Your task to perform on an android device: open app "PUBG MOBILE" Image 0: 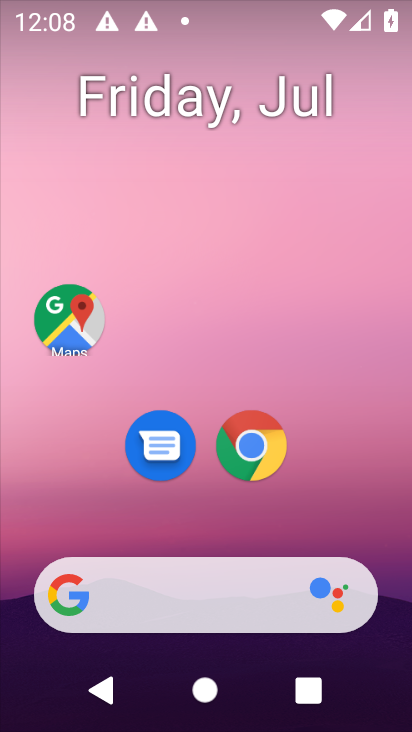
Step 0: drag from (204, 527) to (257, 20)
Your task to perform on an android device: open app "PUBG MOBILE" Image 1: 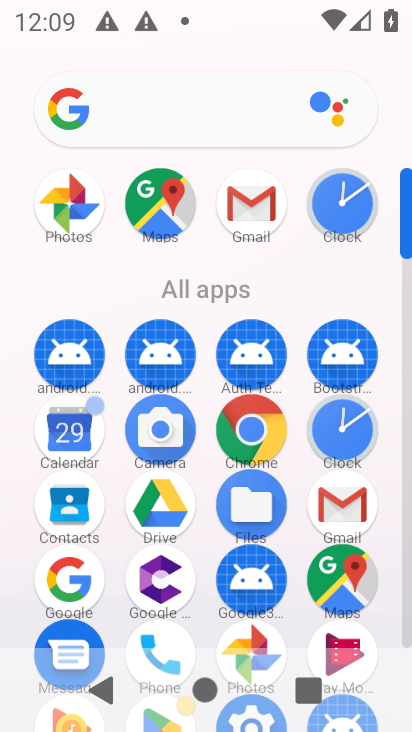
Step 1: drag from (204, 562) to (228, 259)
Your task to perform on an android device: open app "PUBG MOBILE" Image 2: 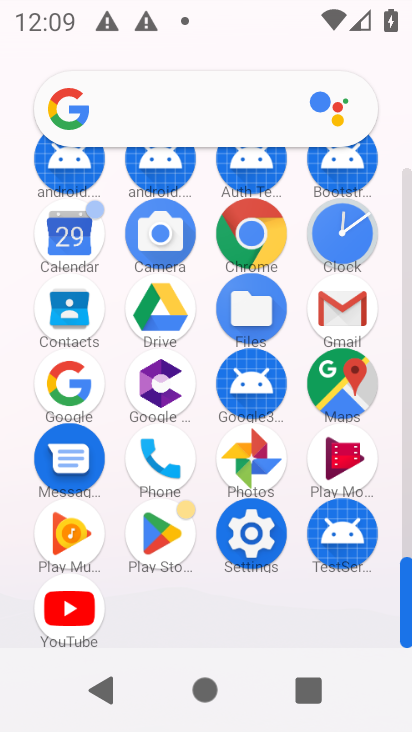
Step 2: click (151, 545)
Your task to perform on an android device: open app "PUBG MOBILE" Image 3: 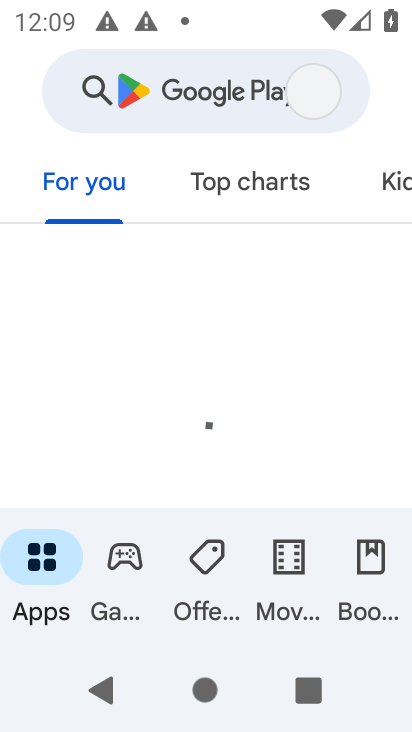
Step 3: click (210, 95)
Your task to perform on an android device: open app "PUBG MOBILE" Image 4: 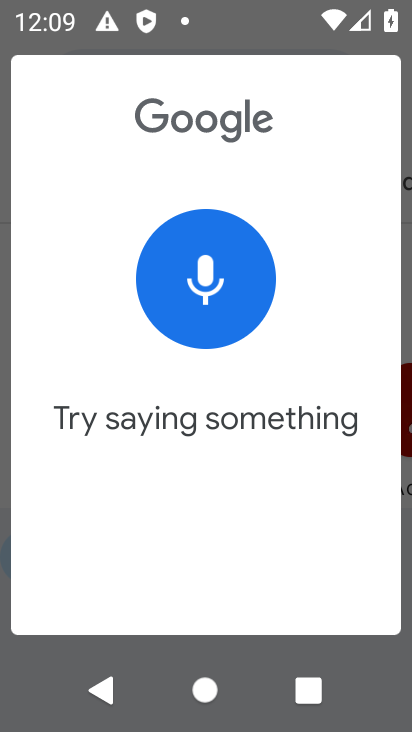
Step 4: press back button
Your task to perform on an android device: open app "PUBG MOBILE" Image 5: 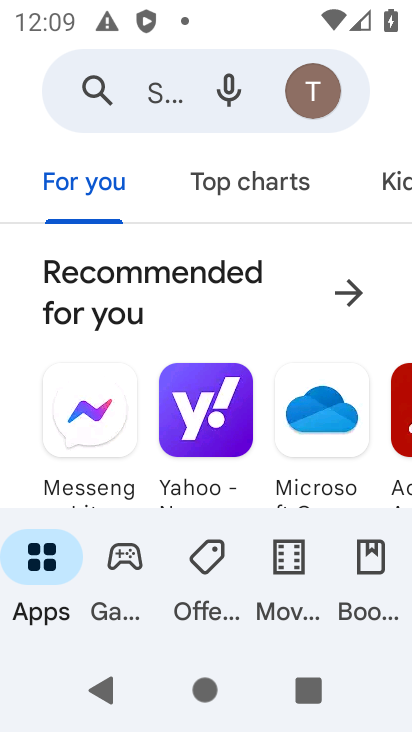
Step 5: click (150, 98)
Your task to perform on an android device: open app "PUBG MOBILE" Image 6: 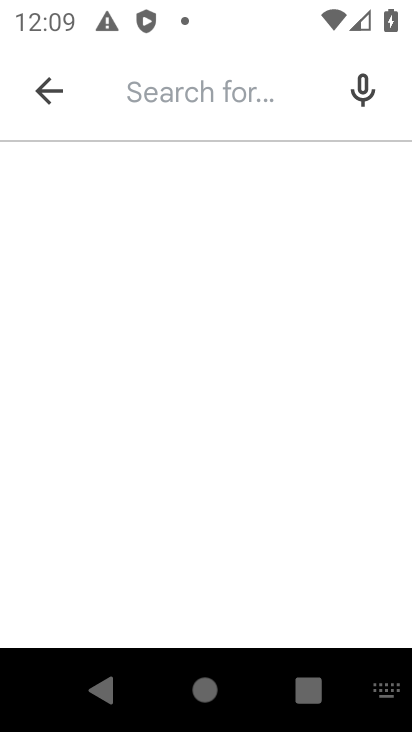
Step 6: type "pubg"
Your task to perform on an android device: open app "PUBG MOBILE" Image 7: 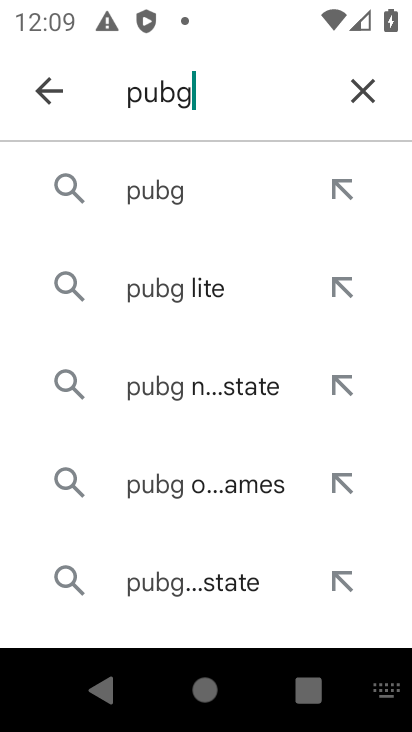
Step 7: click (167, 181)
Your task to perform on an android device: open app "PUBG MOBILE" Image 8: 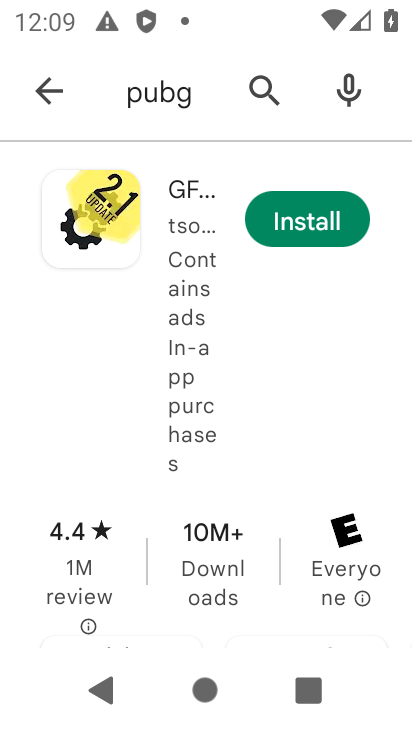
Step 8: task complete